Your task to perform on an android device: toggle notifications settings in the gmail app Image 0: 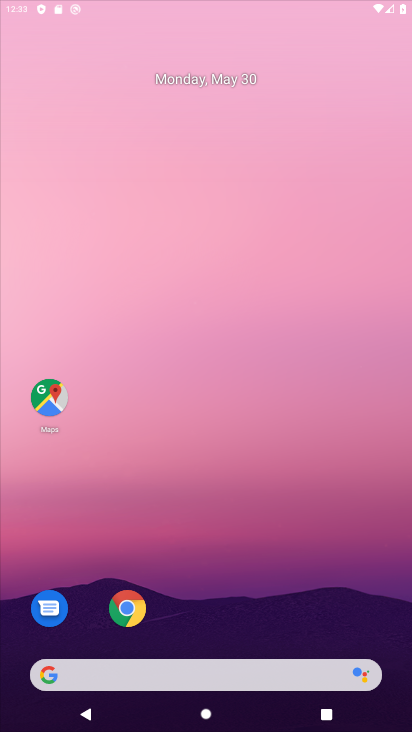
Step 0: click (131, 611)
Your task to perform on an android device: toggle notifications settings in the gmail app Image 1: 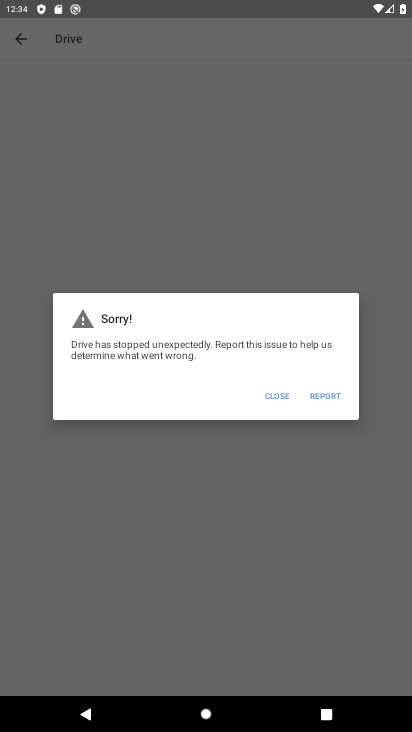
Step 1: press home button
Your task to perform on an android device: toggle notifications settings in the gmail app Image 2: 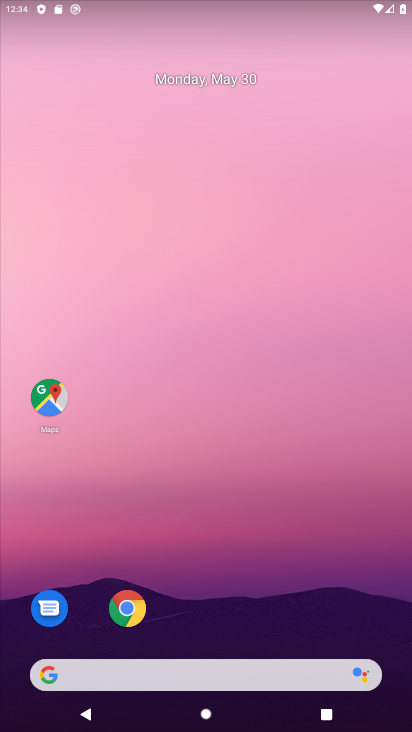
Step 2: drag from (288, 546) to (251, 88)
Your task to perform on an android device: toggle notifications settings in the gmail app Image 3: 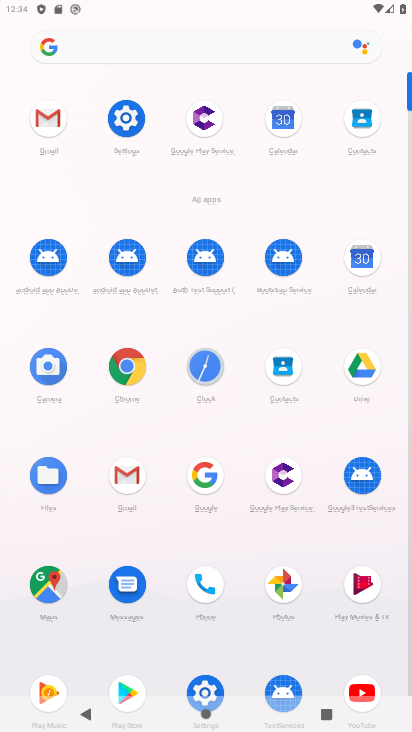
Step 3: click (135, 469)
Your task to perform on an android device: toggle notifications settings in the gmail app Image 4: 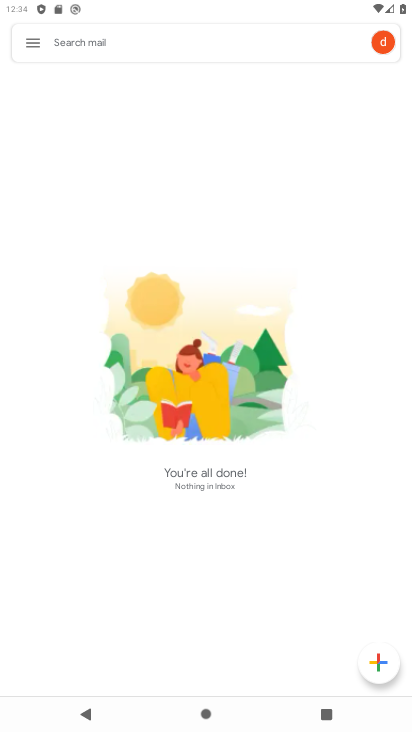
Step 4: click (39, 41)
Your task to perform on an android device: toggle notifications settings in the gmail app Image 5: 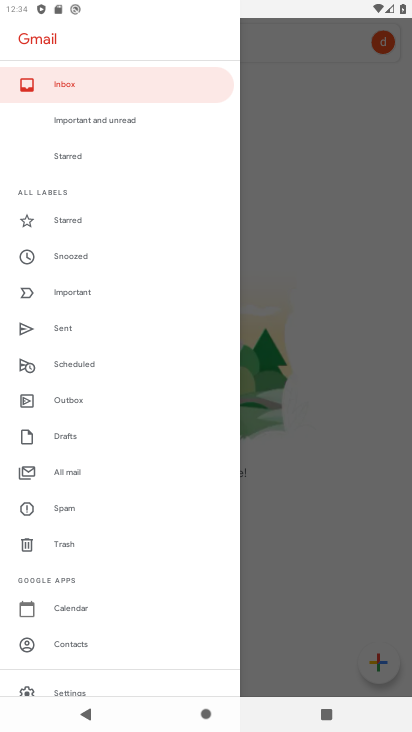
Step 5: click (64, 690)
Your task to perform on an android device: toggle notifications settings in the gmail app Image 6: 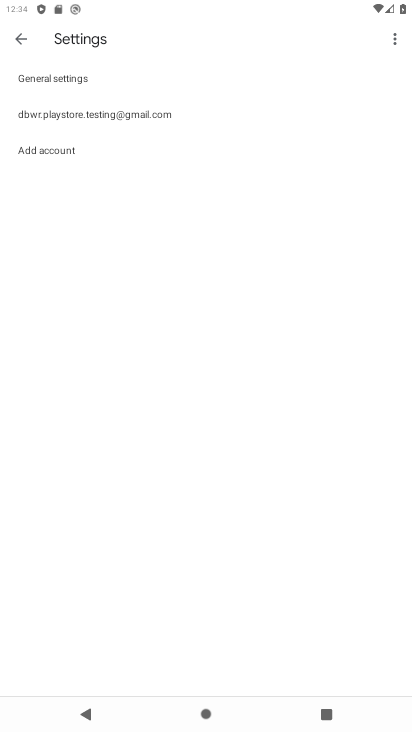
Step 6: click (138, 116)
Your task to perform on an android device: toggle notifications settings in the gmail app Image 7: 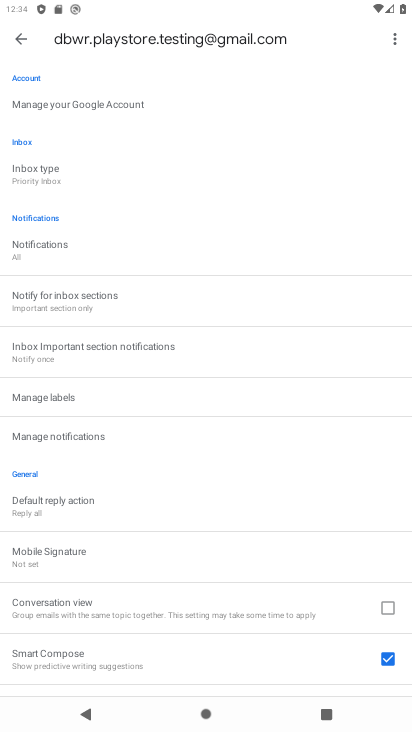
Step 7: click (104, 437)
Your task to perform on an android device: toggle notifications settings in the gmail app Image 8: 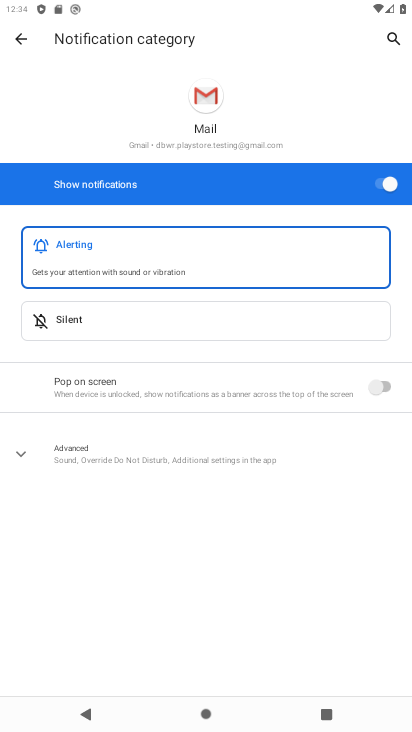
Step 8: click (390, 189)
Your task to perform on an android device: toggle notifications settings in the gmail app Image 9: 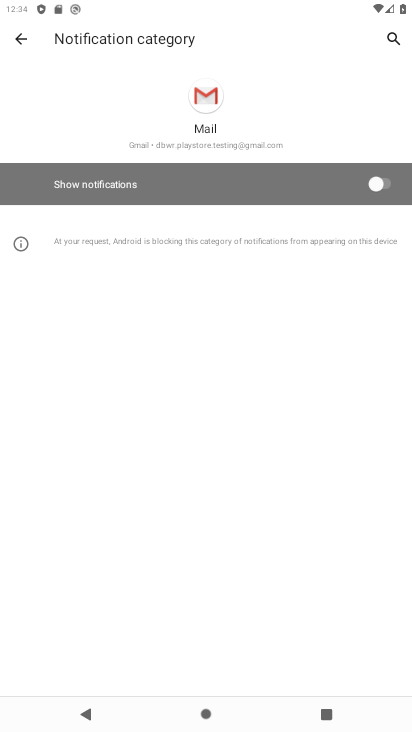
Step 9: task complete